Your task to perform on an android device: Go to Wikipedia Image 0: 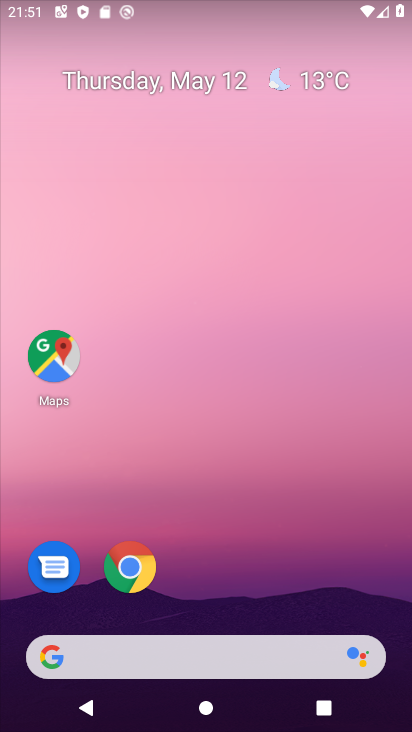
Step 0: drag from (228, 616) to (256, 159)
Your task to perform on an android device: Go to Wikipedia Image 1: 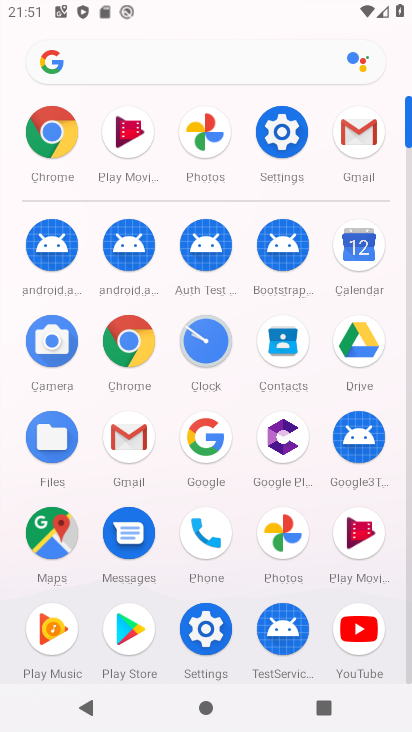
Step 1: click (126, 341)
Your task to perform on an android device: Go to Wikipedia Image 2: 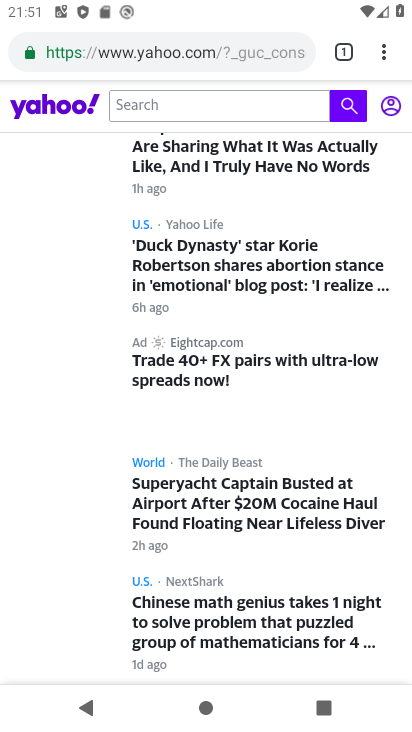
Step 2: click (343, 53)
Your task to perform on an android device: Go to Wikipedia Image 3: 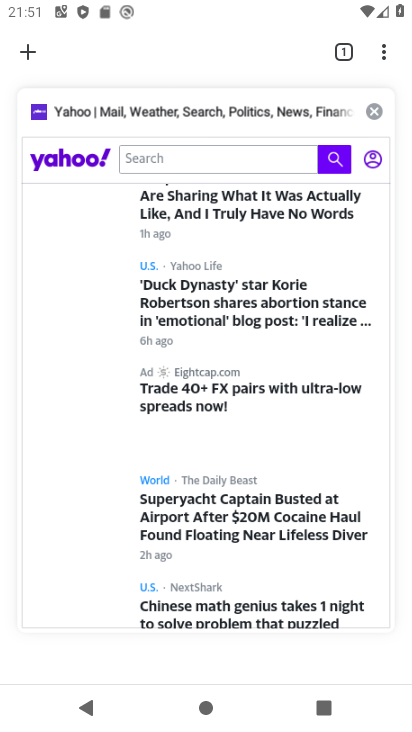
Step 3: click (373, 106)
Your task to perform on an android device: Go to Wikipedia Image 4: 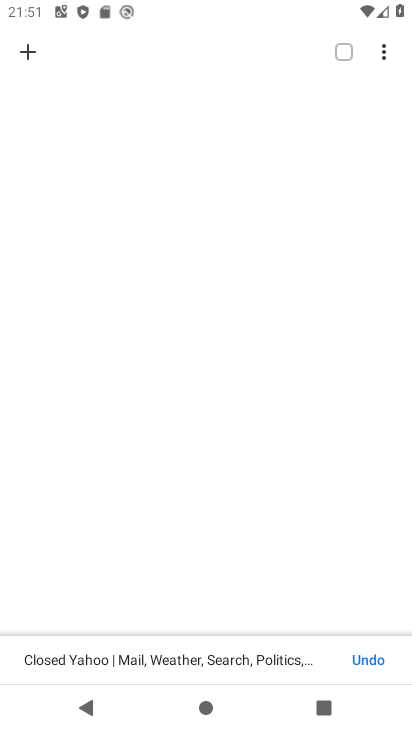
Step 4: click (30, 52)
Your task to perform on an android device: Go to Wikipedia Image 5: 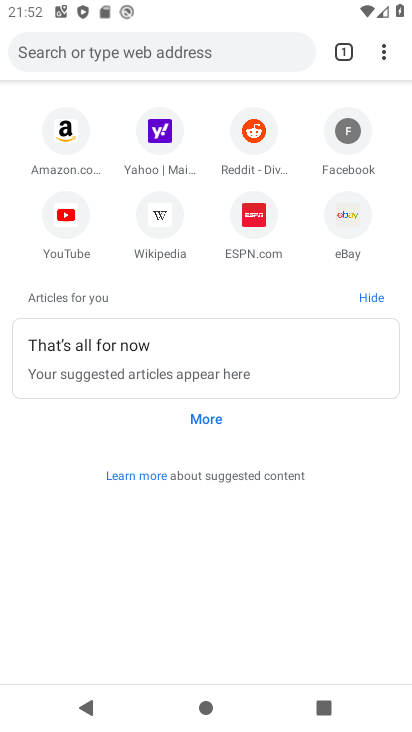
Step 5: click (158, 210)
Your task to perform on an android device: Go to Wikipedia Image 6: 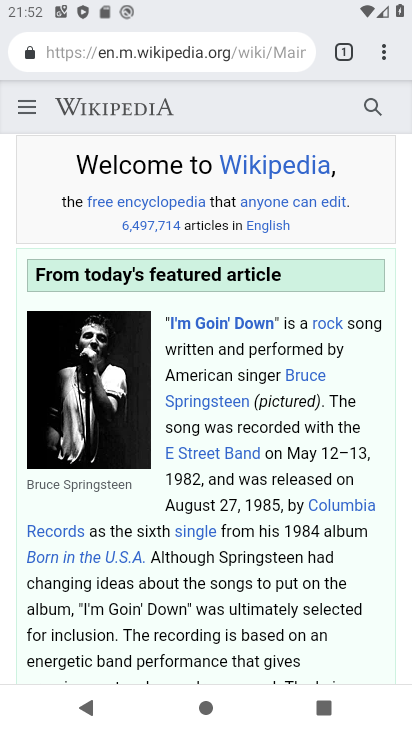
Step 6: task complete